Your task to perform on an android device: install app "Cash App" Image 0: 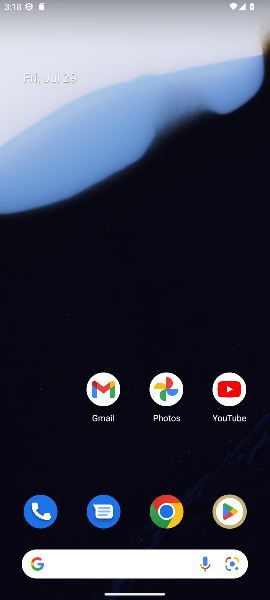
Step 0: click (227, 512)
Your task to perform on an android device: install app "Cash App" Image 1: 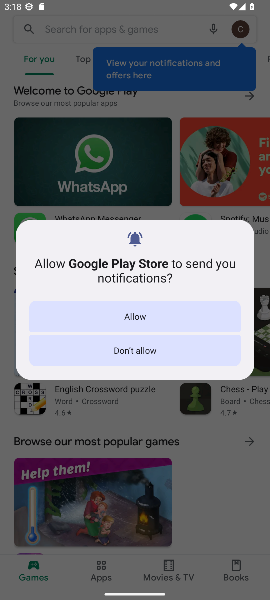
Step 1: click (138, 353)
Your task to perform on an android device: install app "Cash App" Image 2: 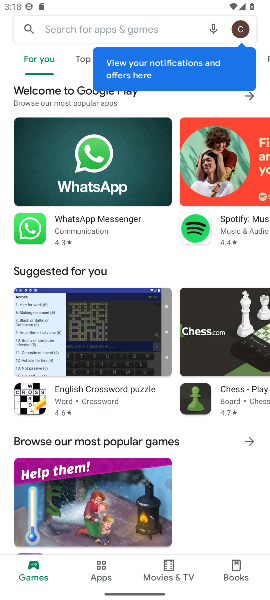
Step 2: click (66, 22)
Your task to perform on an android device: install app "Cash App" Image 3: 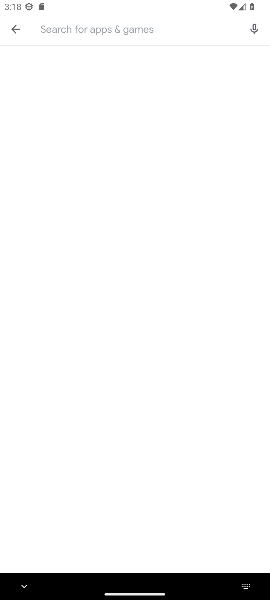
Step 3: type "Cash App"
Your task to perform on an android device: install app "Cash App" Image 4: 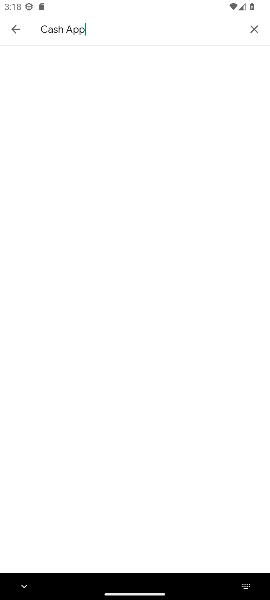
Step 4: type ""
Your task to perform on an android device: install app "Cash App" Image 5: 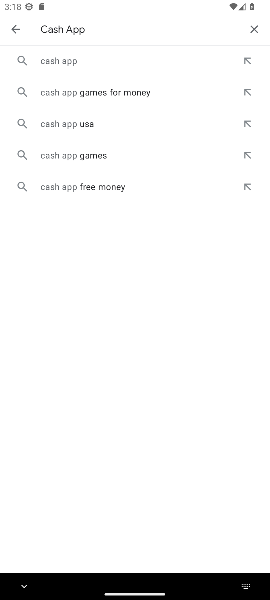
Step 5: click (54, 57)
Your task to perform on an android device: install app "Cash App" Image 6: 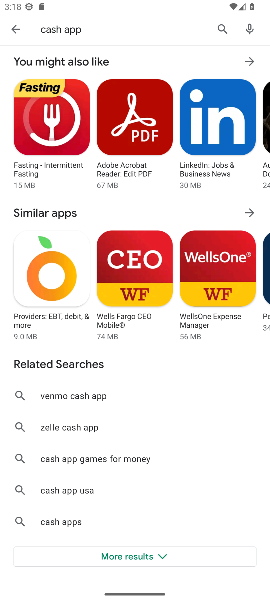
Step 6: task complete